Your task to perform on an android device: Open privacy settings Image 0: 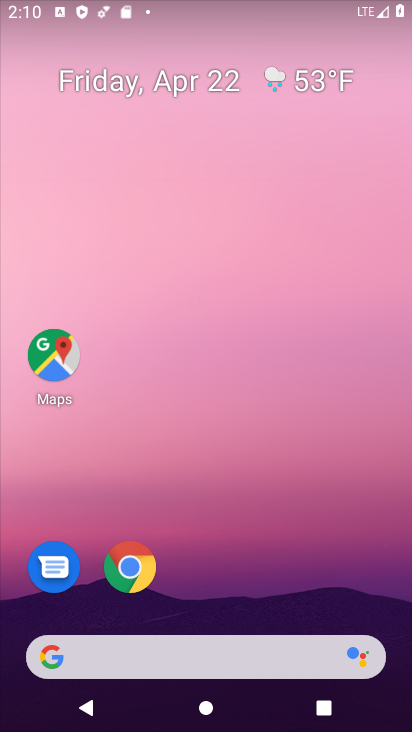
Step 0: drag from (236, 595) to (210, 163)
Your task to perform on an android device: Open privacy settings Image 1: 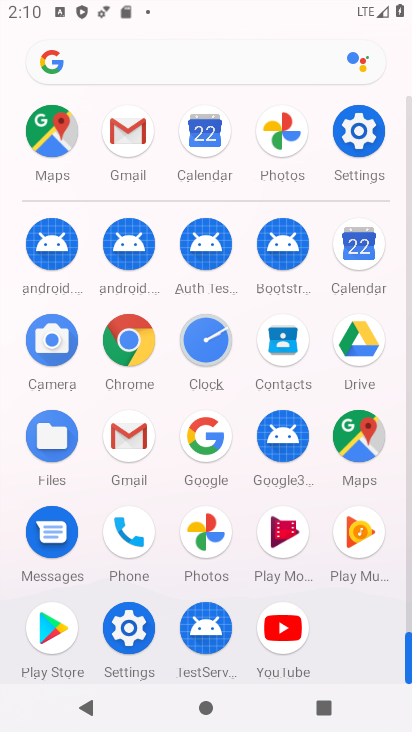
Step 1: click (130, 636)
Your task to perform on an android device: Open privacy settings Image 2: 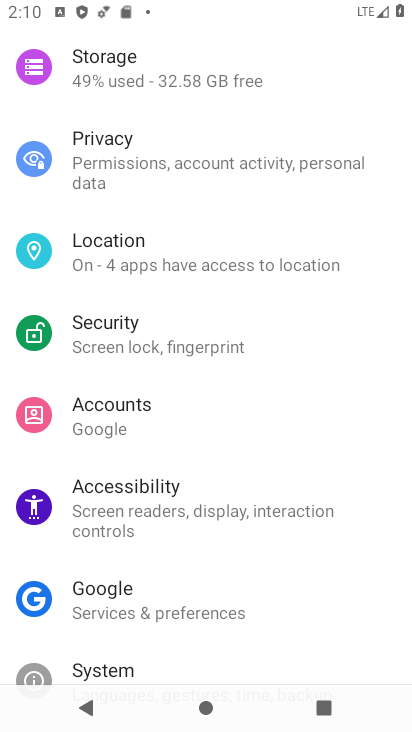
Step 2: click (95, 148)
Your task to perform on an android device: Open privacy settings Image 3: 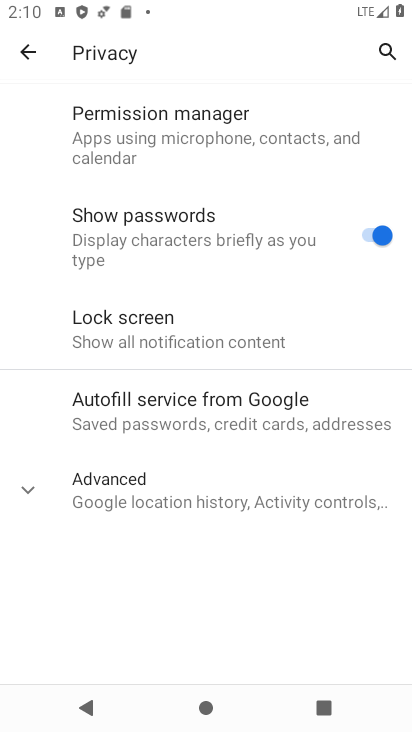
Step 3: click (81, 488)
Your task to perform on an android device: Open privacy settings Image 4: 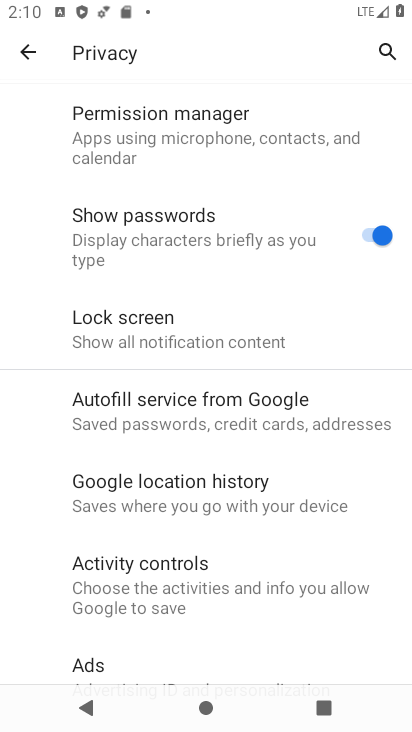
Step 4: task complete